Your task to perform on an android device: add a contact in the contacts app Image 0: 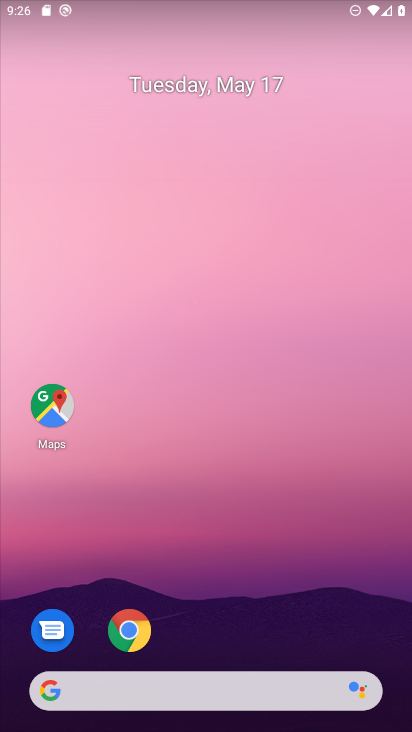
Step 0: drag from (364, 616) to (358, 225)
Your task to perform on an android device: add a contact in the contacts app Image 1: 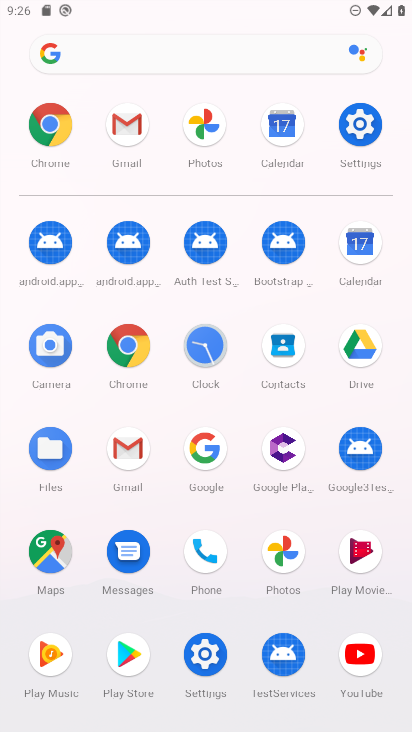
Step 1: click (287, 355)
Your task to perform on an android device: add a contact in the contacts app Image 2: 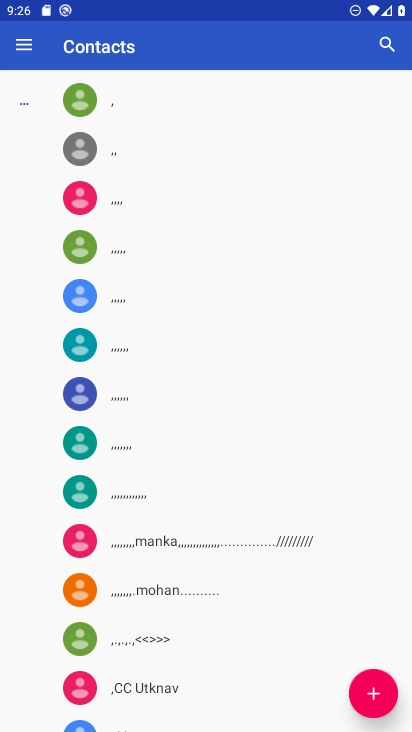
Step 2: click (374, 700)
Your task to perform on an android device: add a contact in the contacts app Image 3: 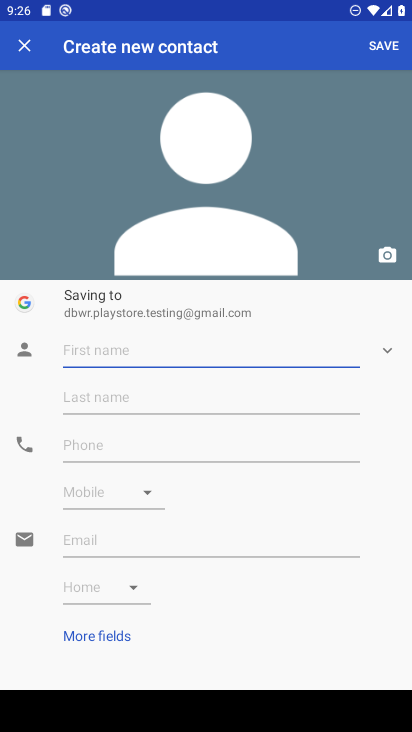
Step 3: click (213, 351)
Your task to perform on an android device: add a contact in the contacts app Image 4: 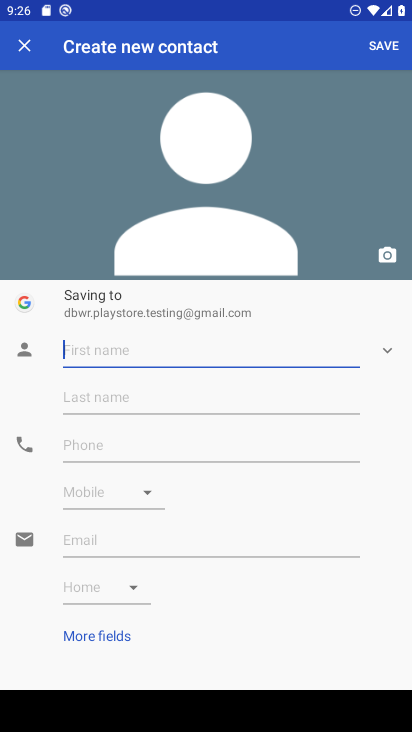
Step 4: type "love 1"
Your task to perform on an android device: add a contact in the contacts app Image 5: 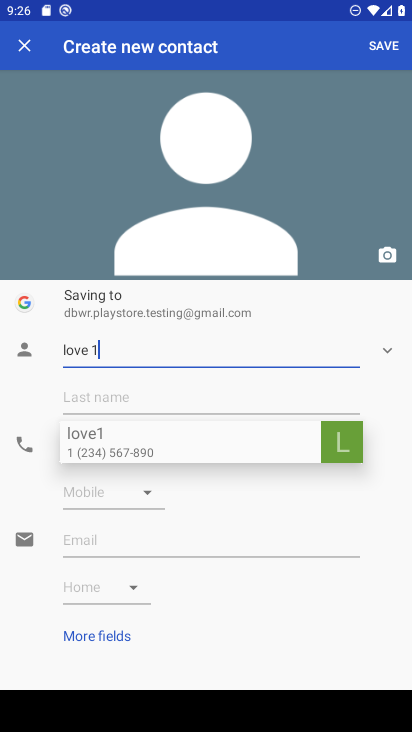
Step 5: click (398, 434)
Your task to perform on an android device: add a contact in the contacts app Image 6: 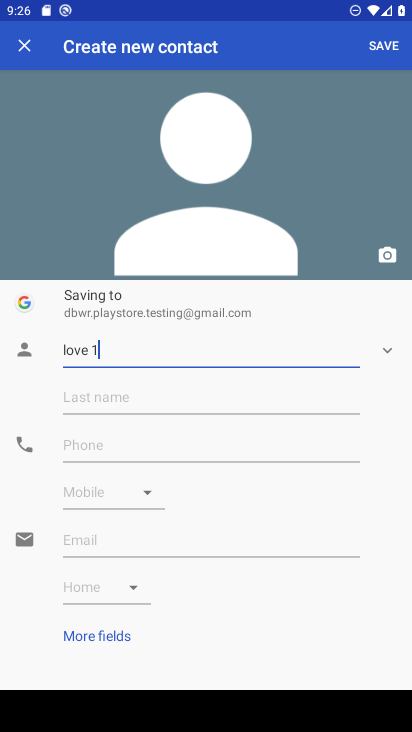
Step 6: click (192, 455)
Your task to perform on an android device: add a contact in the contacts app Image 7: 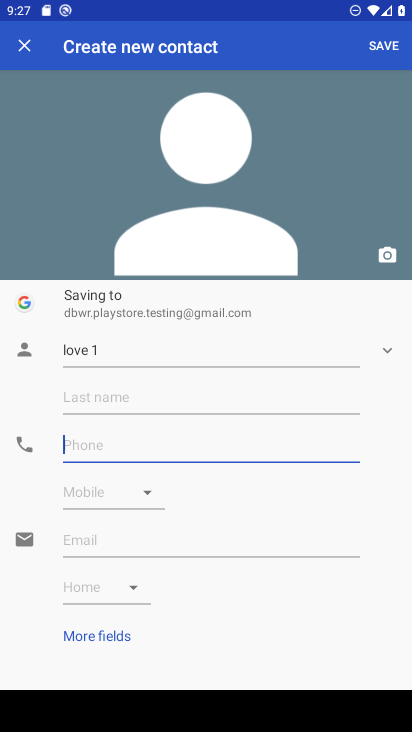
Step 7: type "1234567890"
Your task to perform on an android device: add a contact in the contacts app Image 8: 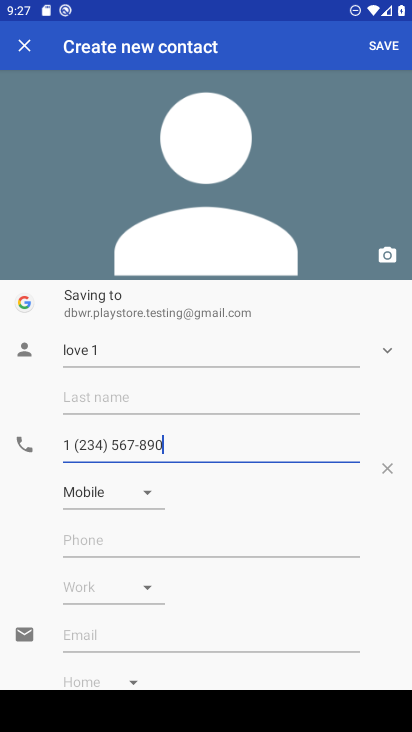
Step 8: click (399, 53)
Your task to perform on an android device: add a contact in the contacts app Image 9: 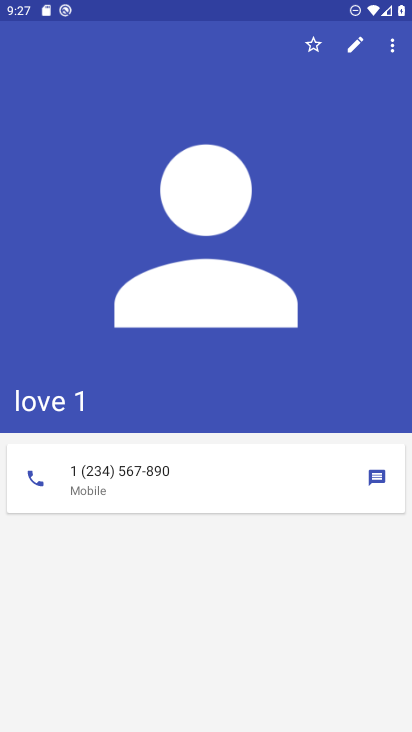
Step 9: task complete